Your task to perform on an android device: delete location history Image 0: 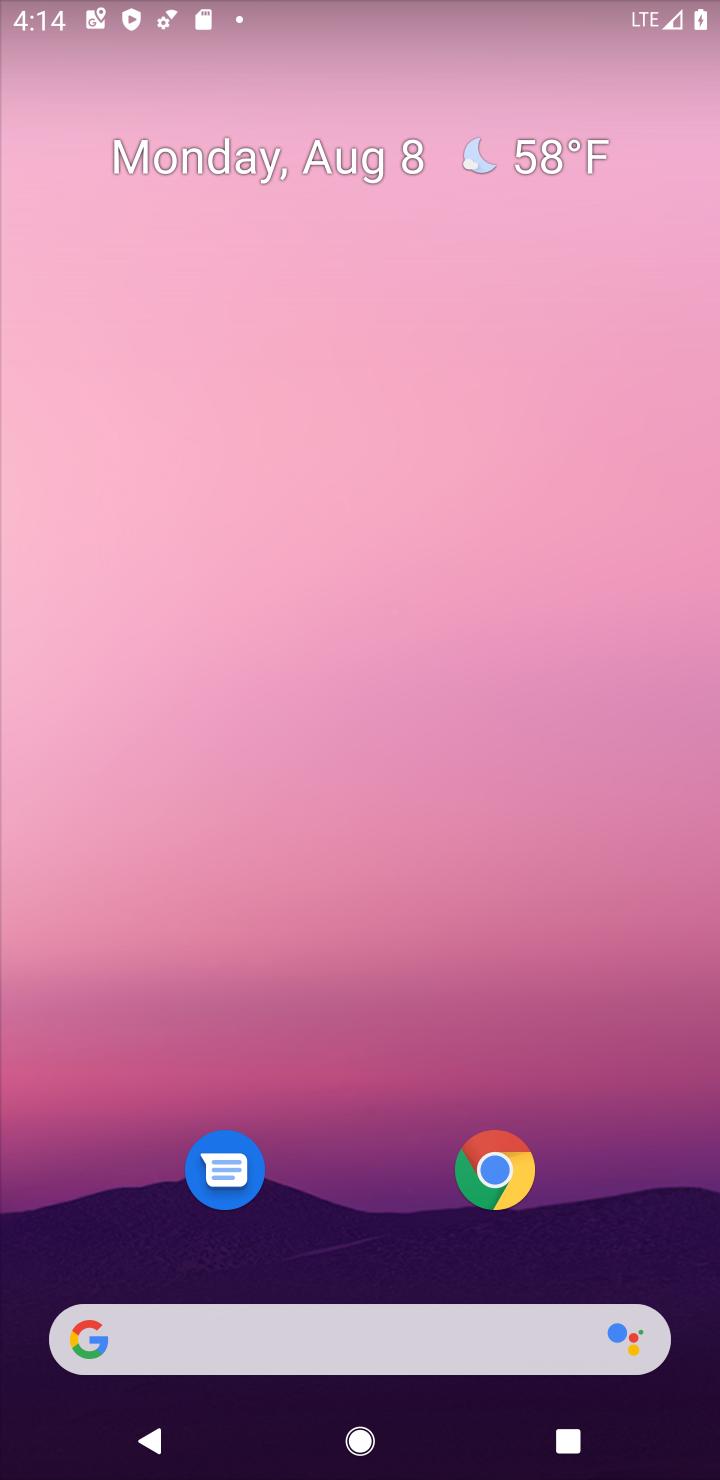
Step 0: drag from (342, 1012) to (334, 492)
Your task to perform on an android device: delete location history Image 1: 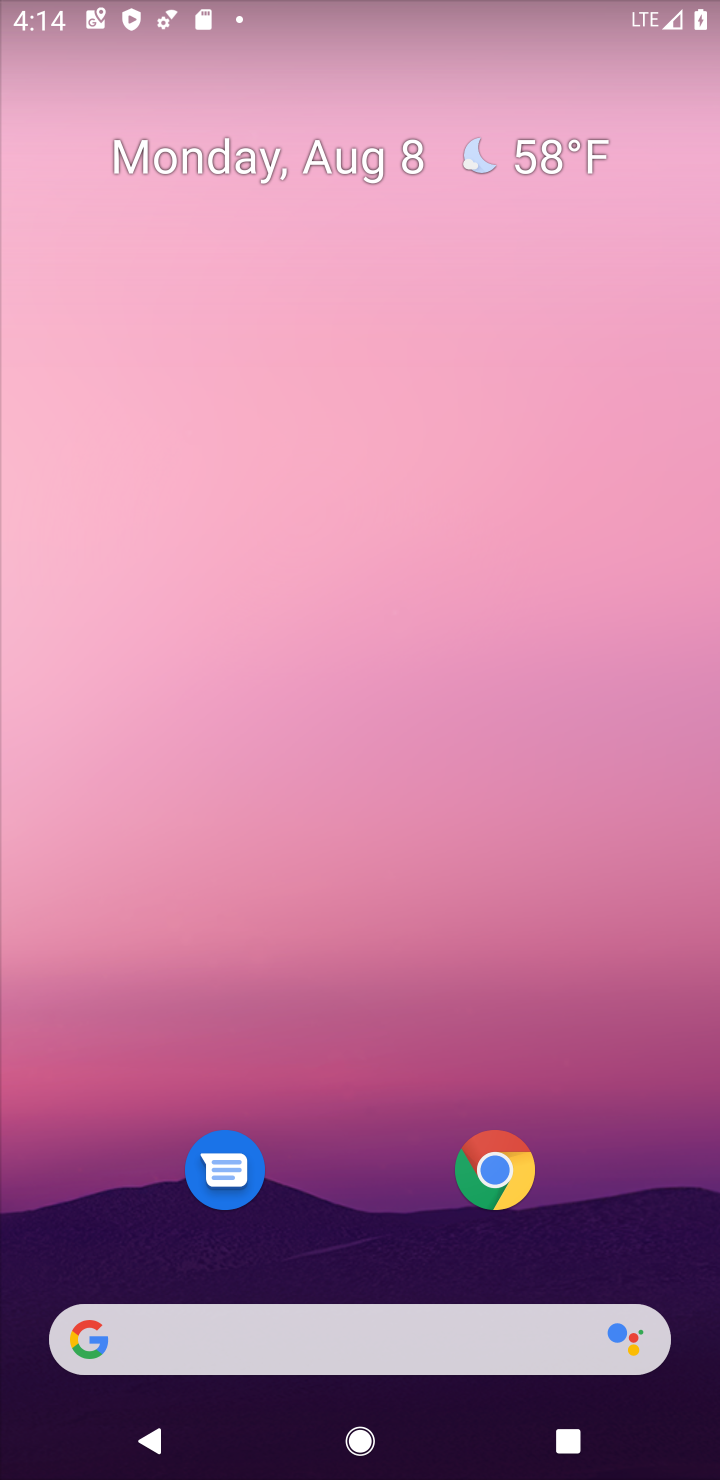
Step 1: drag from (330, 934) to (322, 492)
Your task to perform on an android device: delete location history Image 2: 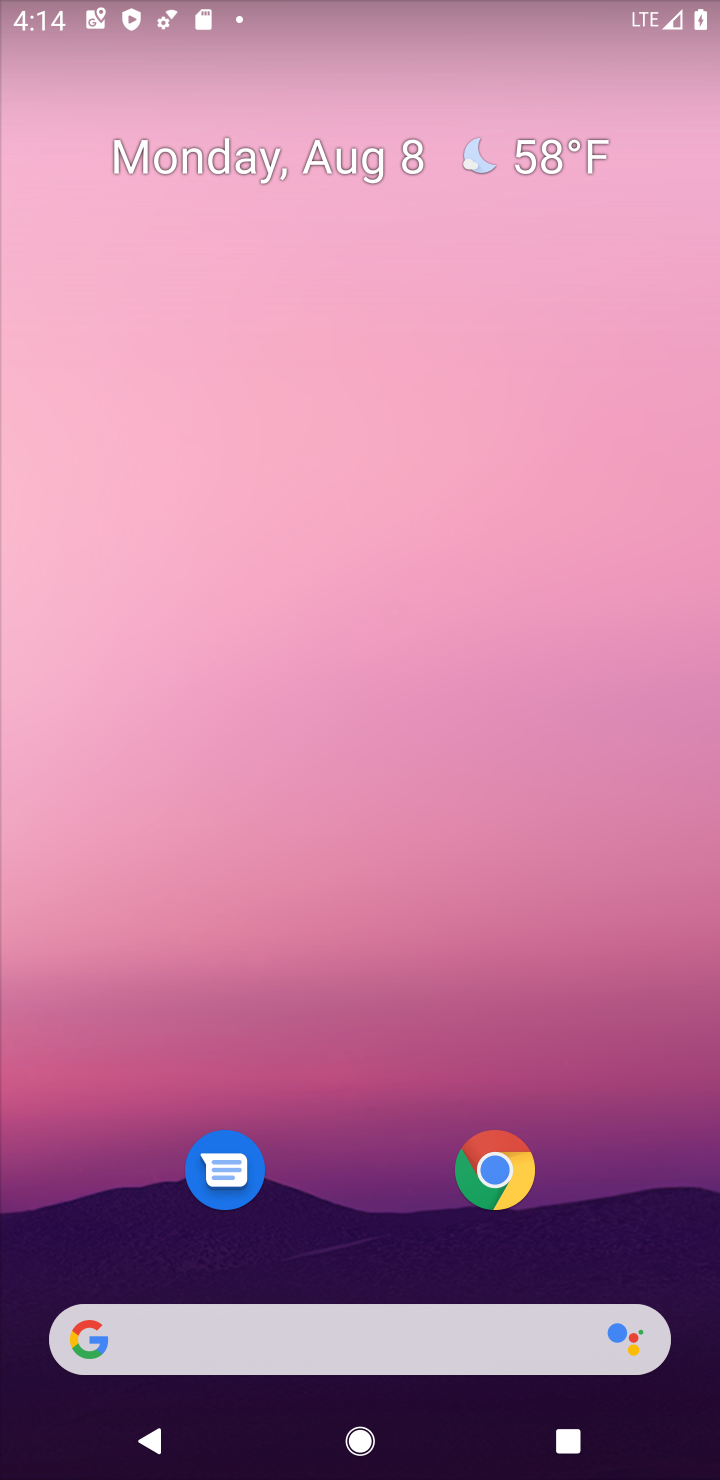
Step 2: drag from (329, 1069) to (316, 333)
Your task to perform on an android device: delete location history Image 3: 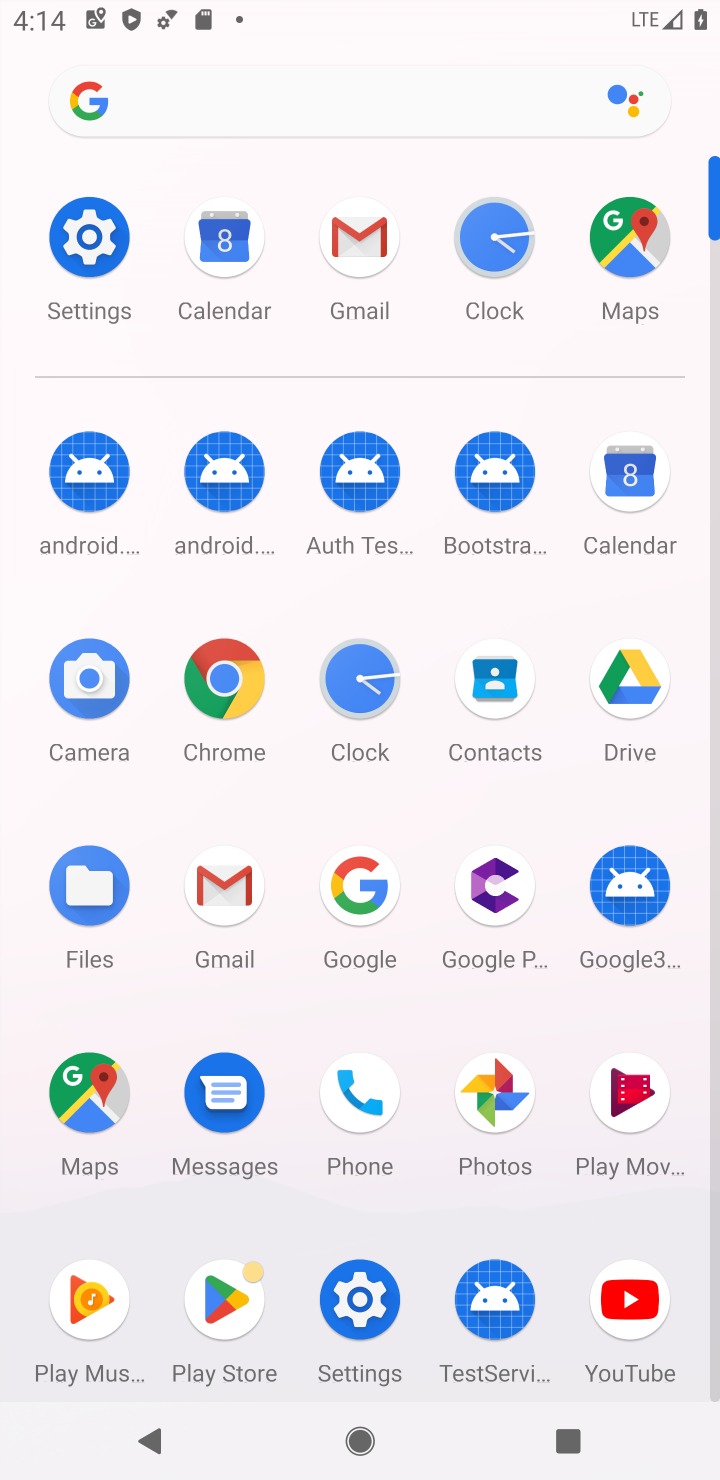
Step 3: click (650, 263)
Your task to perform on an android device: delete location history Image 4: 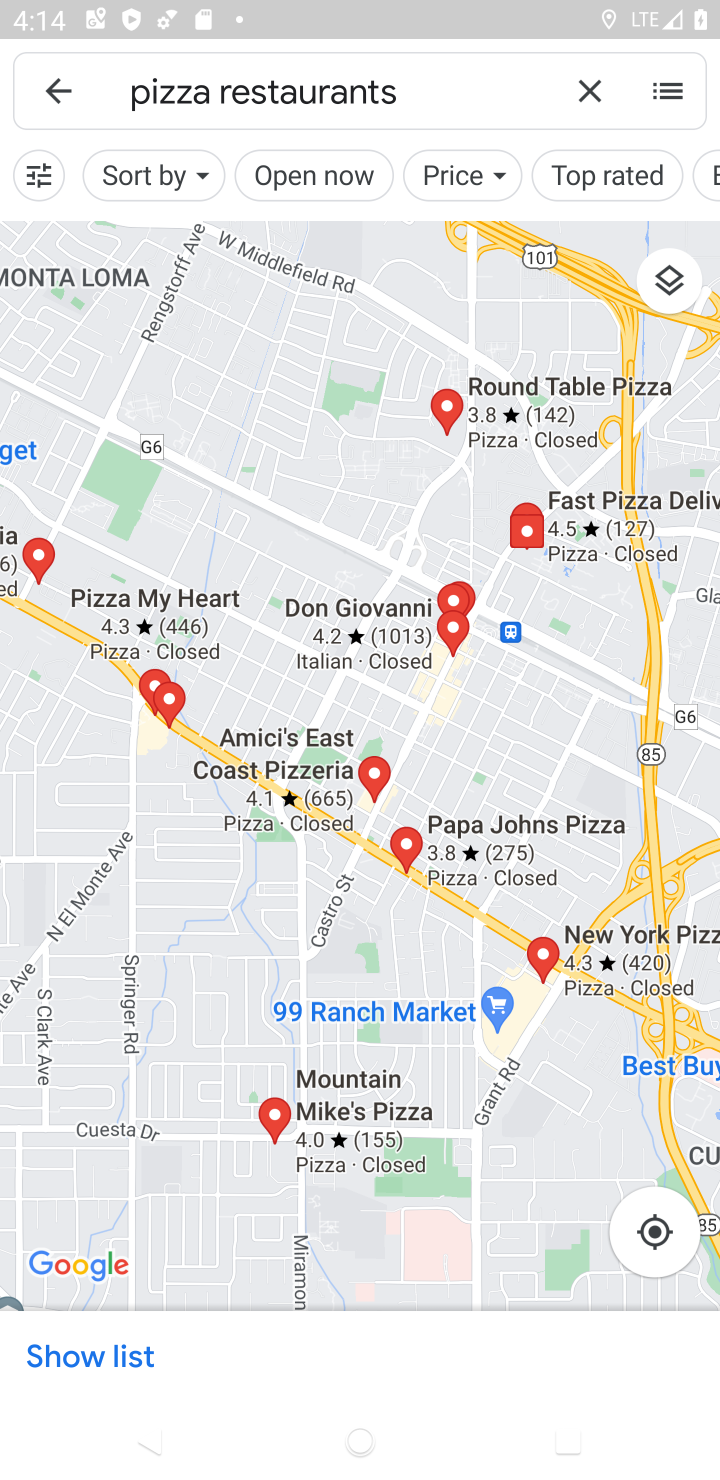
Step 4: click (43, 110)
Your task to perform on an android device: delete location history Image 5: 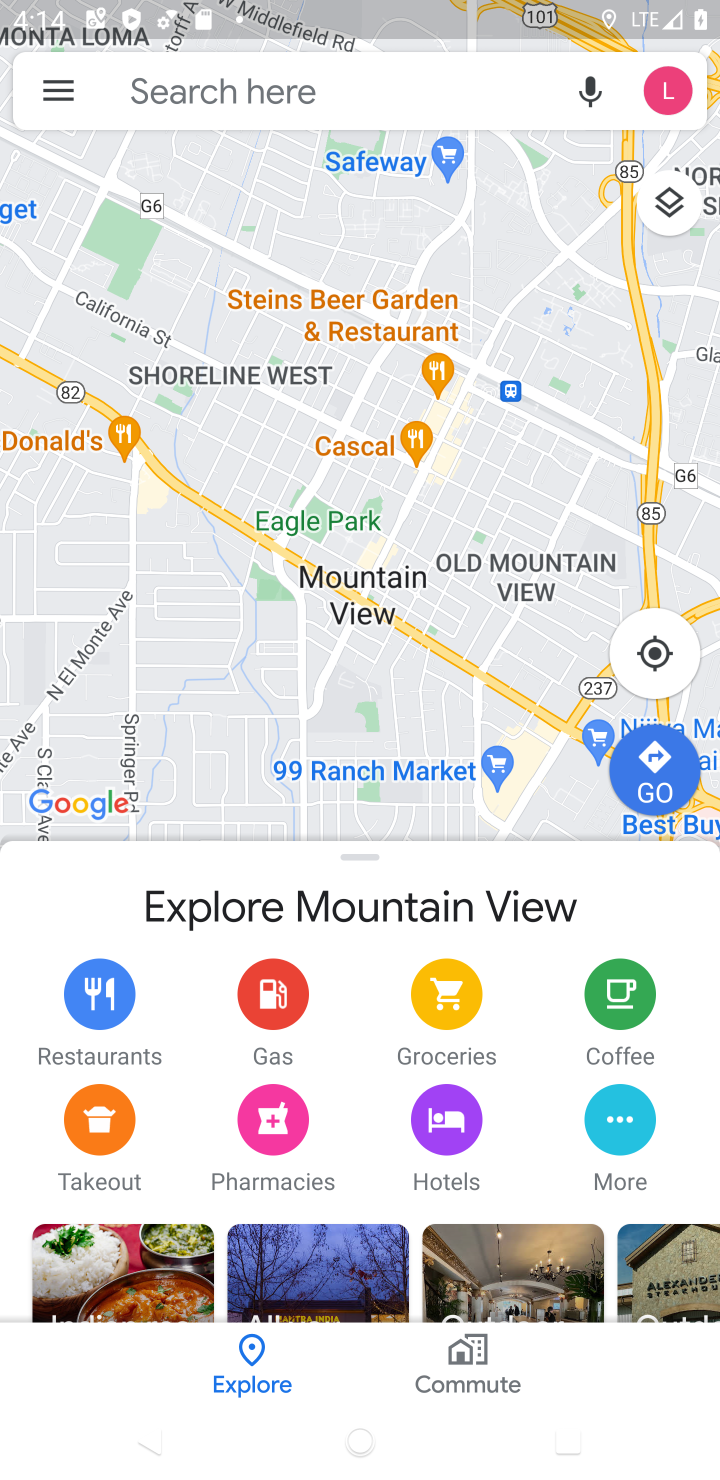
Step 5: click (68, 112)
Your task to perform on an android device: delete location history Image 6: 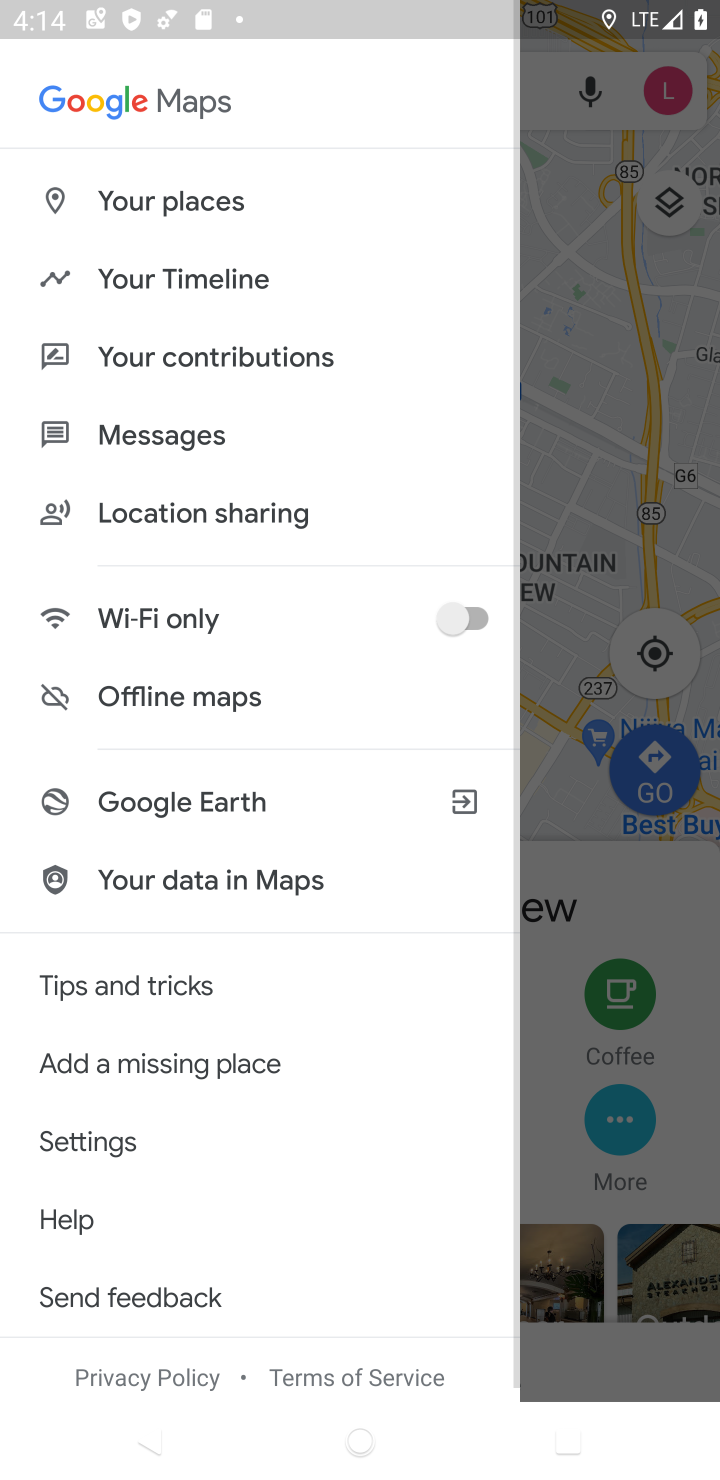
Step 6: click (193, 257)
Your task to perform on an android device: delete location history Image 7: 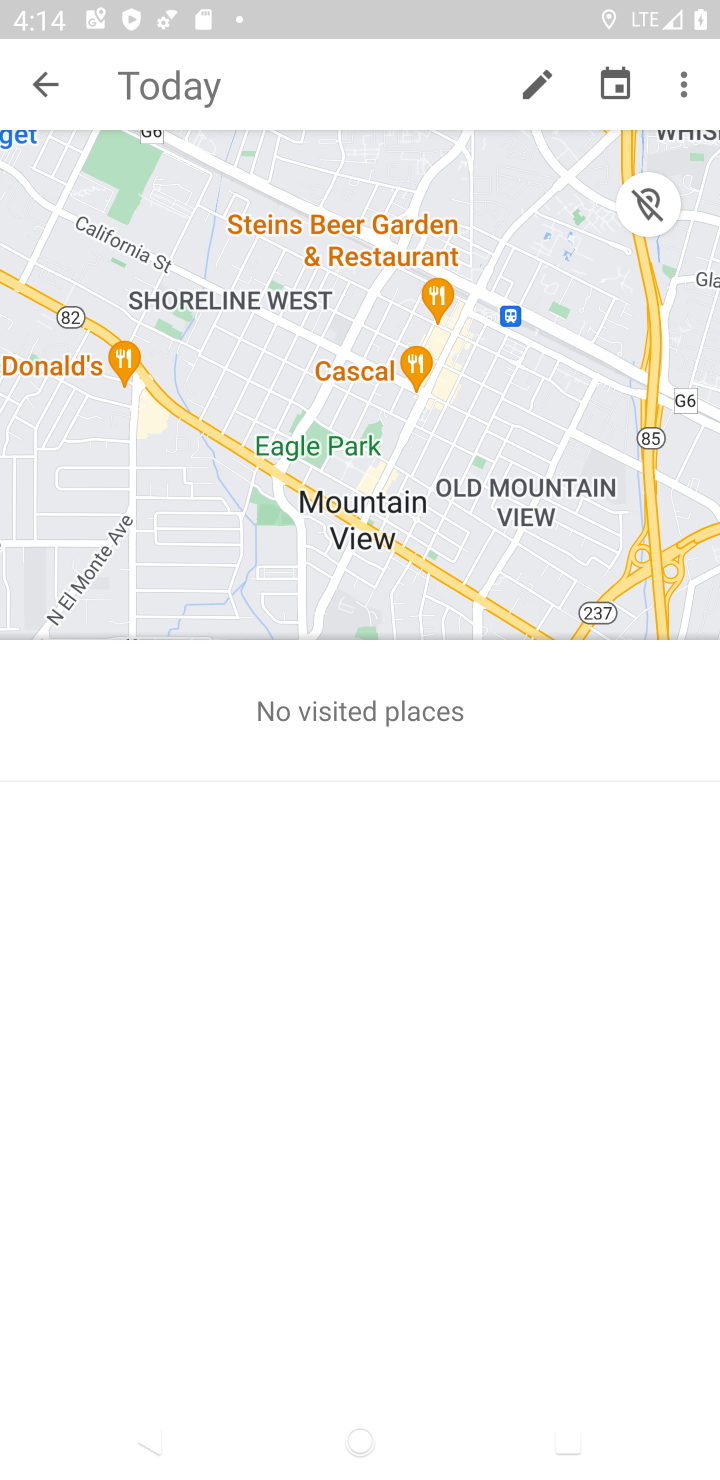
Step 7: click (679, 97)
Your task to perform on an android device: delete location history Image 8: 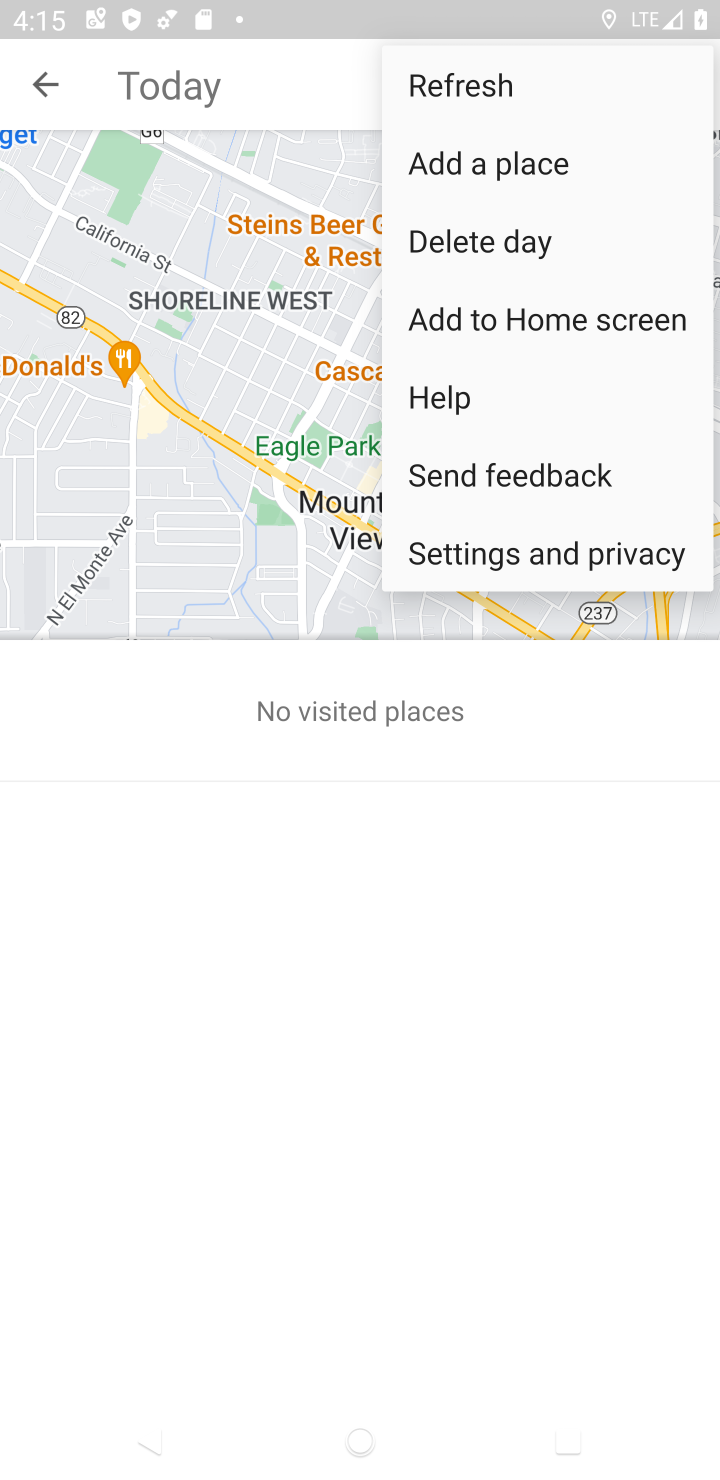
Step 8: click (529, 569)
Your task to perform on an android device: delete location history Image 9: 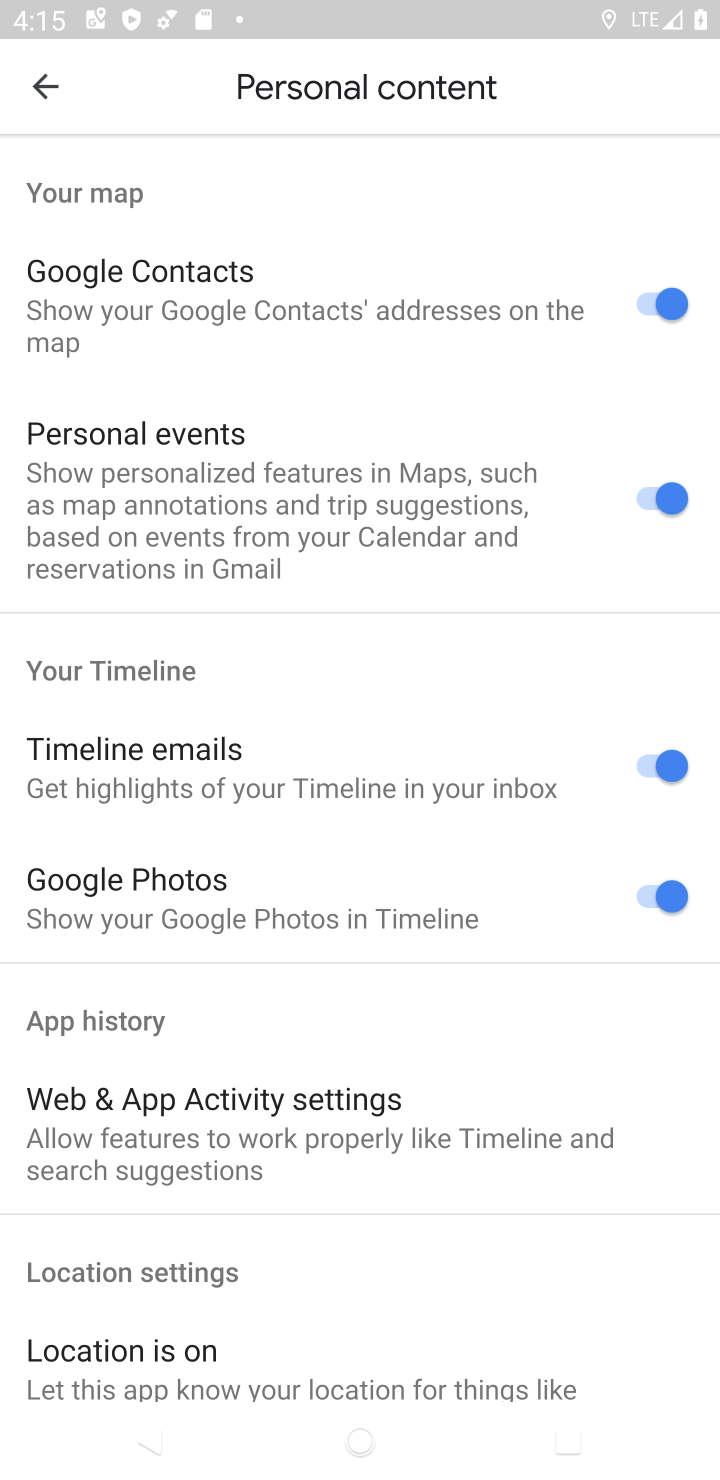
Step 9: drag from (308, 1021) to (314, 424)
Your task to perform on an android device: delete location history Image 10: 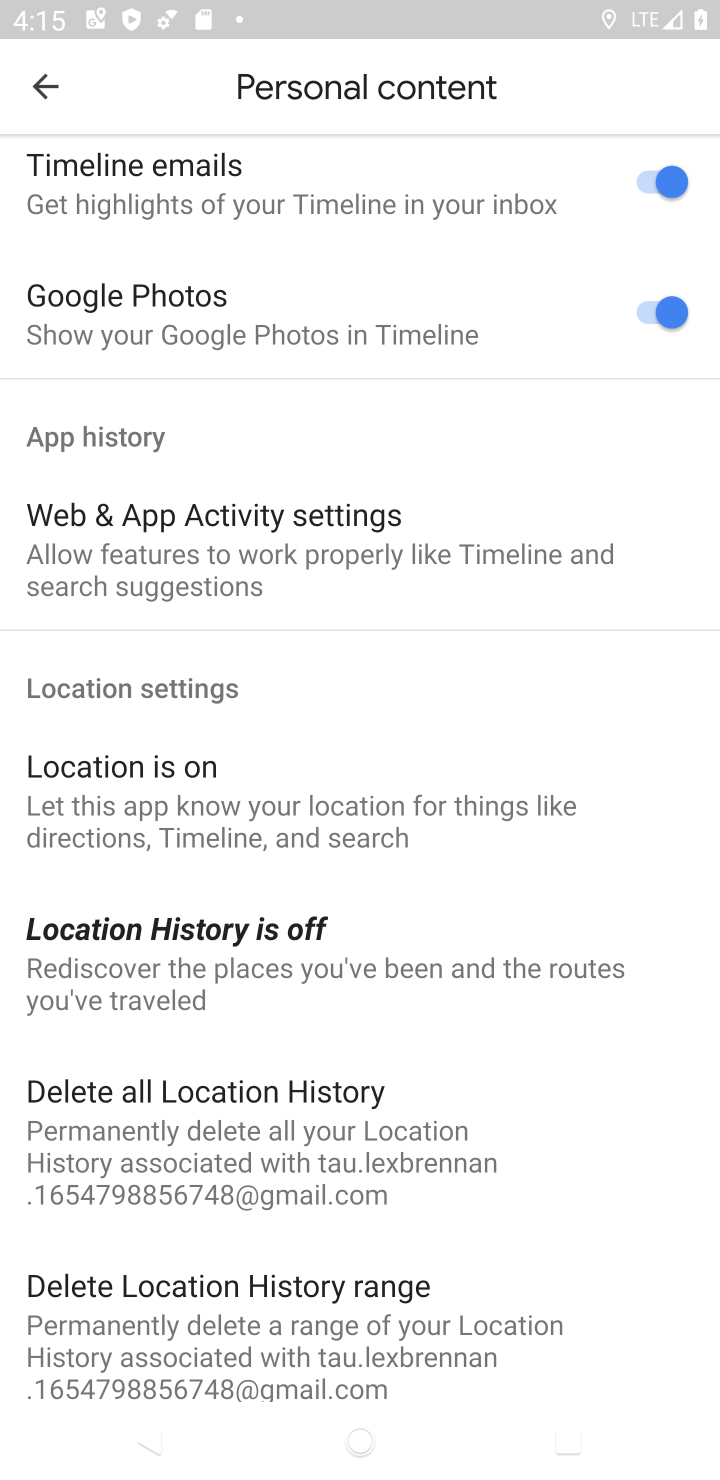
Step 10: click (344, 1158)
Your task to perform on an android device: delete location history Image 11: 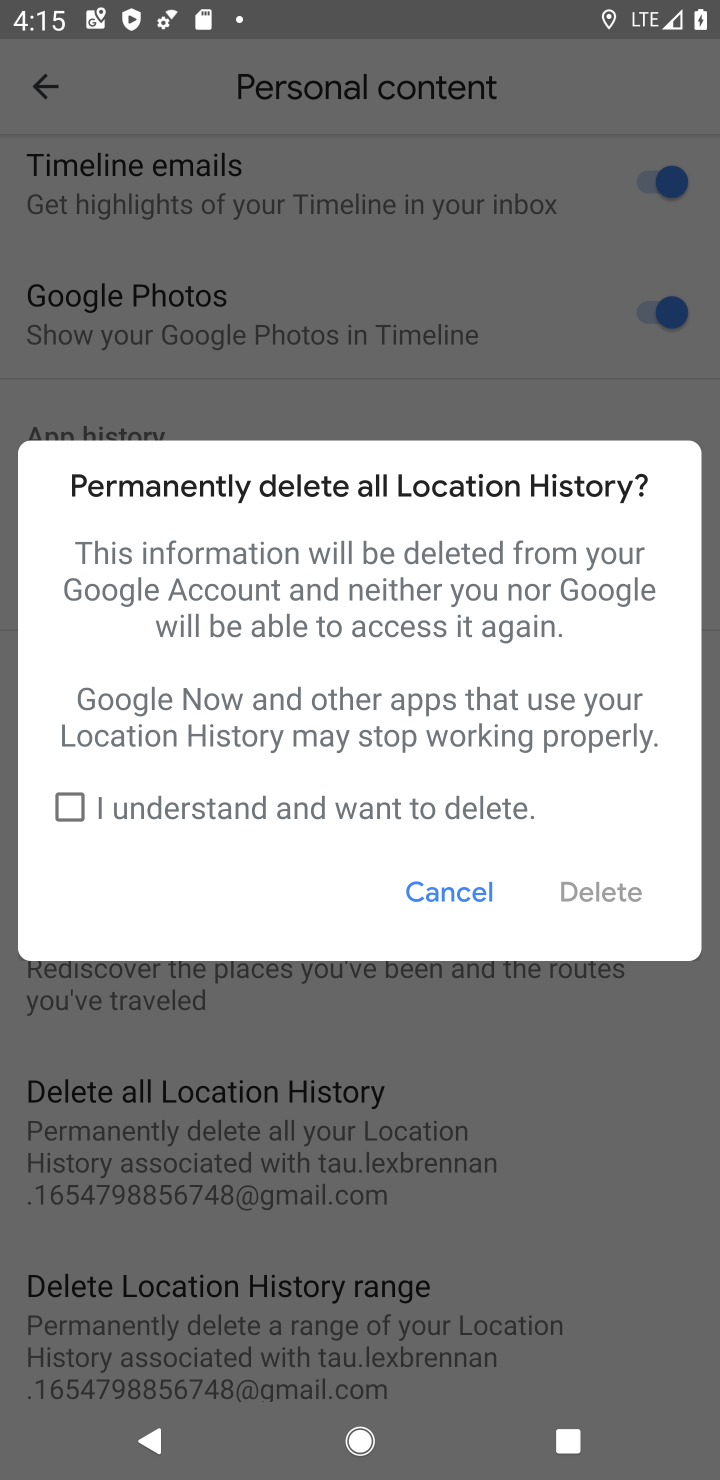
Step 11: click (371, 798)
Your task to perform on an android device: delete location history Image 12: 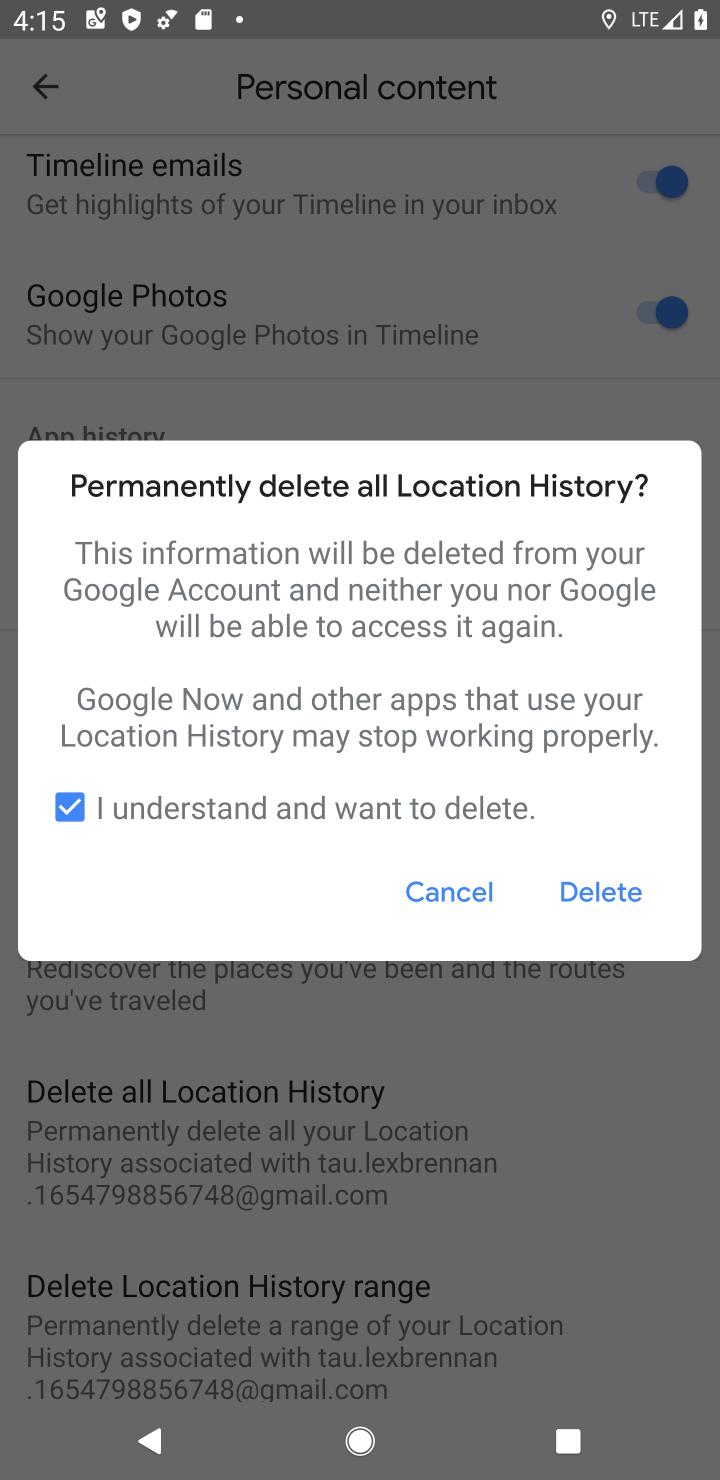
Step 12: click (613, 916)
Your task to perform on an android device: delete location history Image 13: 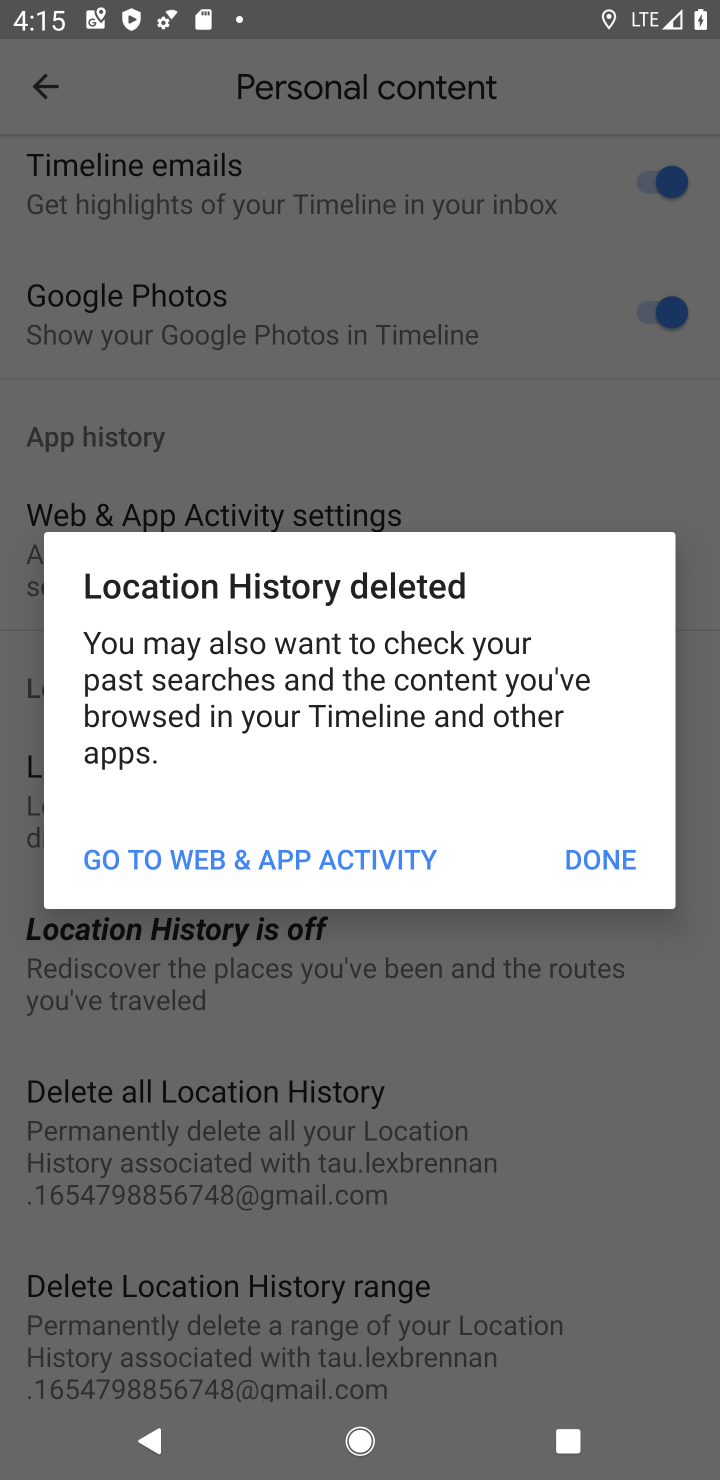
Step 13: task complete